Your task to perform on an android device: turn off location Image 0: 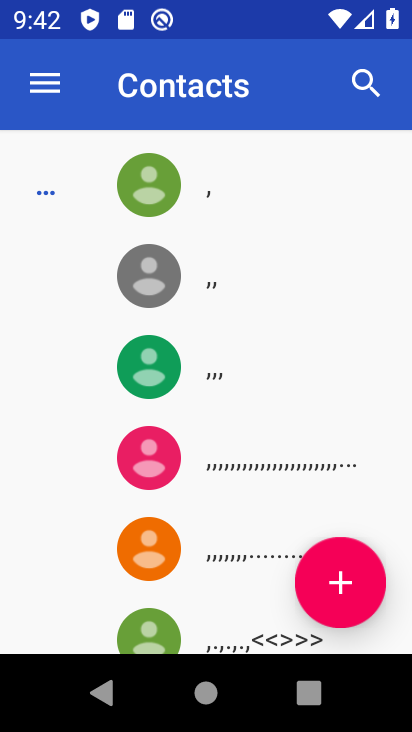
Step 0: press home button
Your task to perform on an android device: turn off location Image 1: 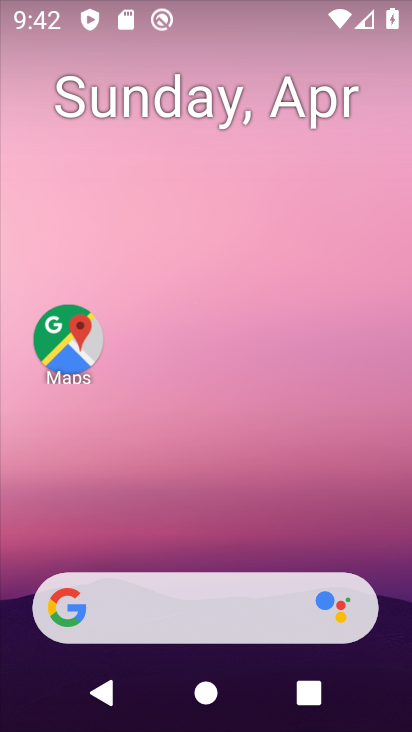
Step 1: drag from (232, 705) to (237, 126)
Your task to perform on an android device: turn off location Image 2: 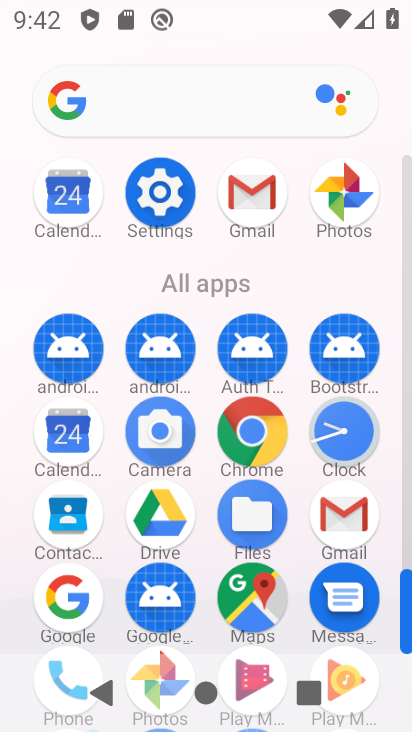
Step 2: click (160, 200)
Your task to perform on an android device: turn off location Image 3: 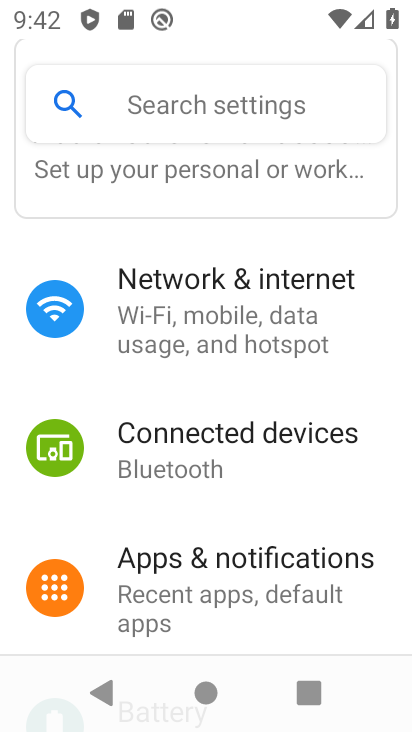
Step 3: drag from (203, 630) to (197, 246)
Your task to perform on an android device: turn off location Image 4: 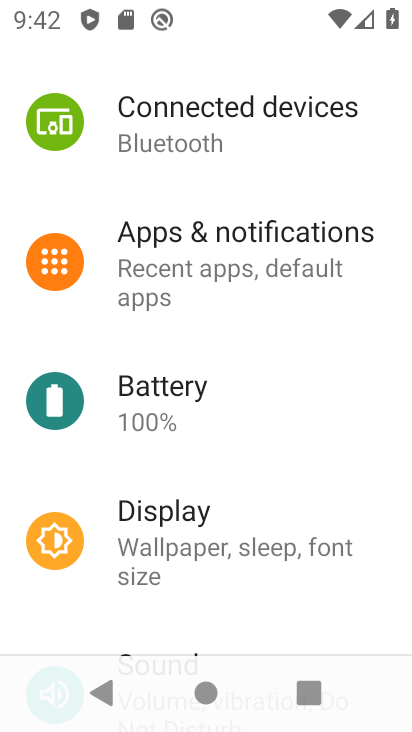
Step 4: drag from (240, 612) to (248, 279)
Your task to perform on an android device: turn off location Image 5: 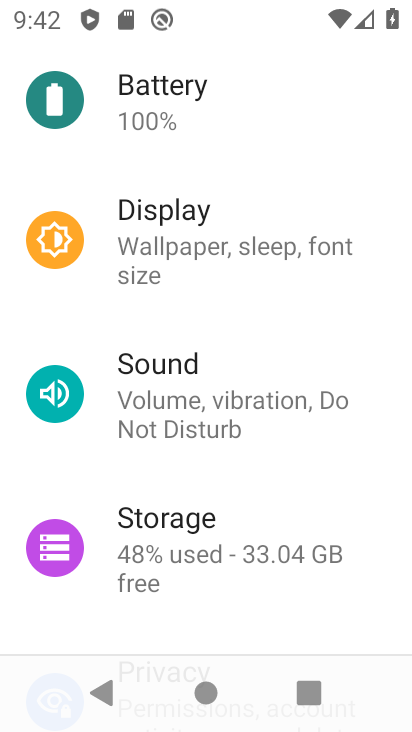
Step 5: drag from (231, 627) to (252, 247)
Your task to perform on an android device: turn off location Image 6: 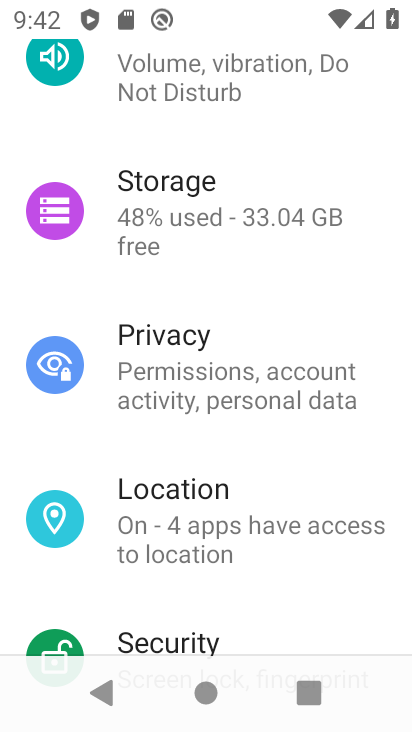
Step 6: click (172, 504)
Your task to perform on an android device: turn off location Image 7: 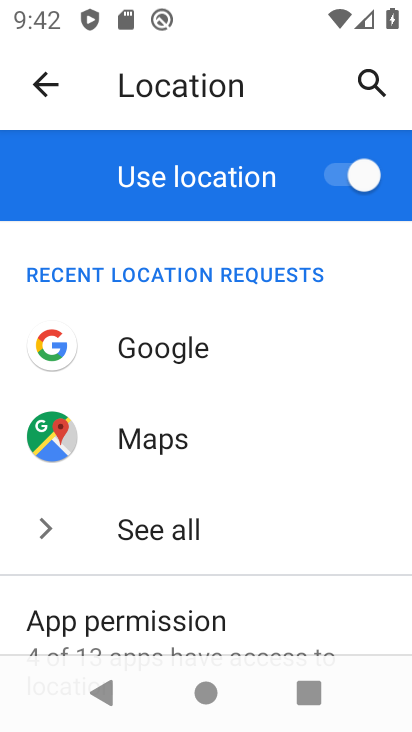
Step 7: click (339, 178)
Your task to perform on an android device: turn off location Image 8: 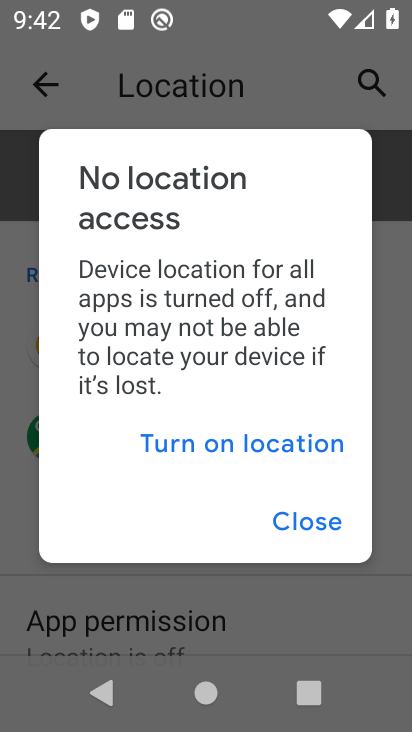
Step 8: click (313, 519)
Your task to perform on an android device: turn off location Image 9: 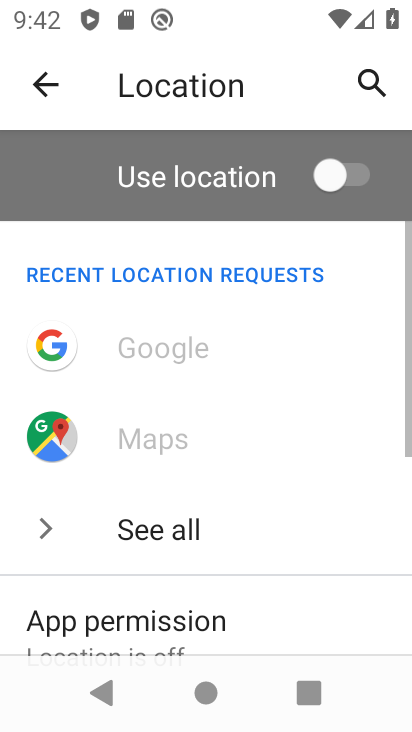
Step 9: task complete